Your task to perform on an android device: turn off smart reply in the gmail app Image 0: 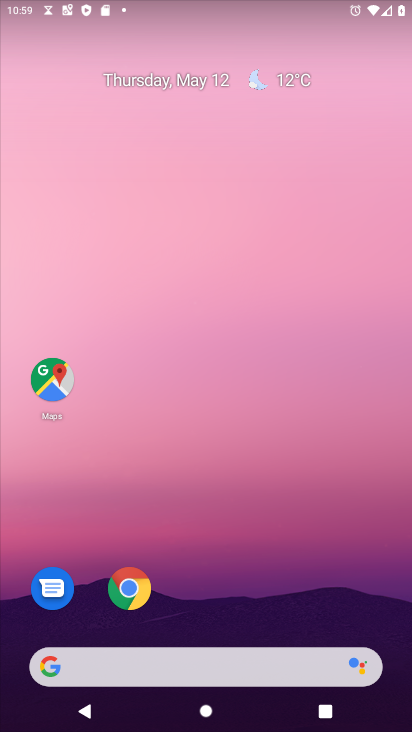
Step 0: drag from (241, 585) to (232, 117)
Your task to perform on an android device: turn off smart reply in the gmail app Image 1: 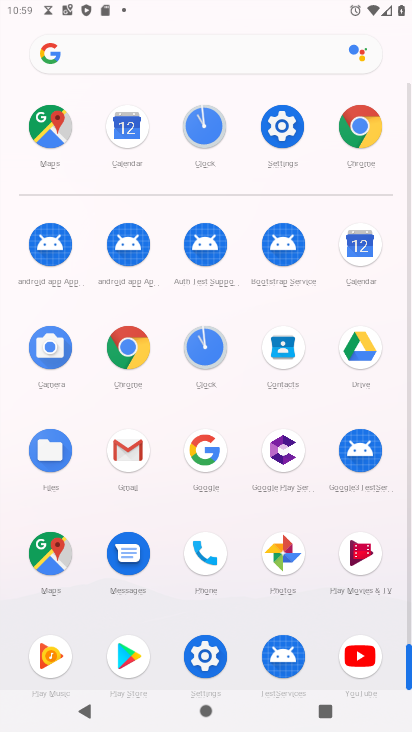
Step 1: click (126, 451)
Your task to perform on an android device: turn off smart reply in the gmail app Image 2: 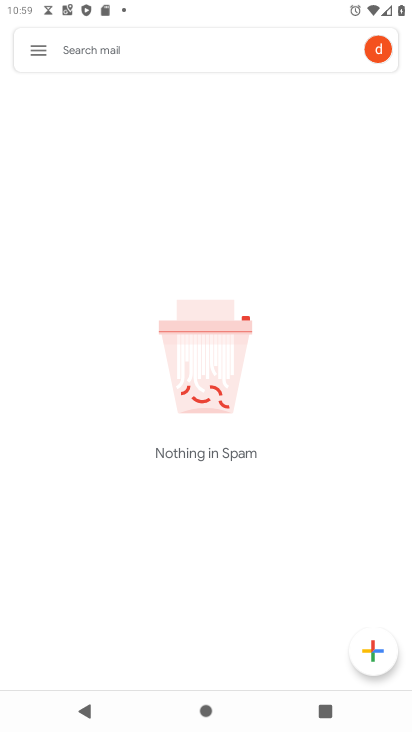
Step 2: click (37, 52)
Your task to perform on an android device: turn off smart reply in the gmail app Image 3: 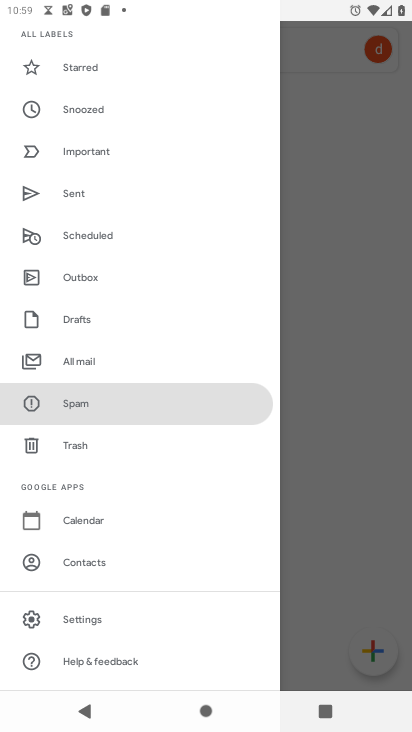
Step 3: drag from (108, 490) to (150, 405)
Your task to perform on an android device: turn off smart reply in the gmail app Image 4: 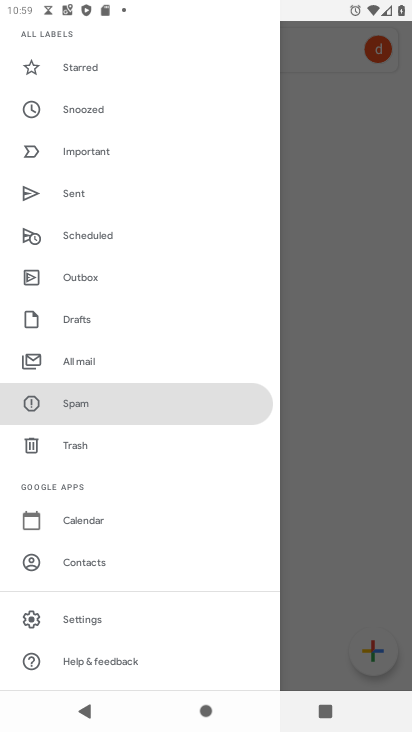
Step 4: click (87, 615)
Your task to perform on an android device: turn off smart reply in the gmail app Image 5: 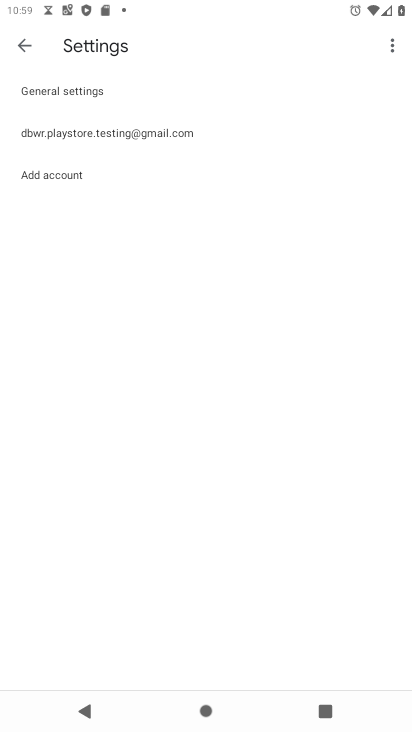
Step 5: click (81, 139)
Your task to perform on an android device: turn off smart reply in the gmail app Image 6: 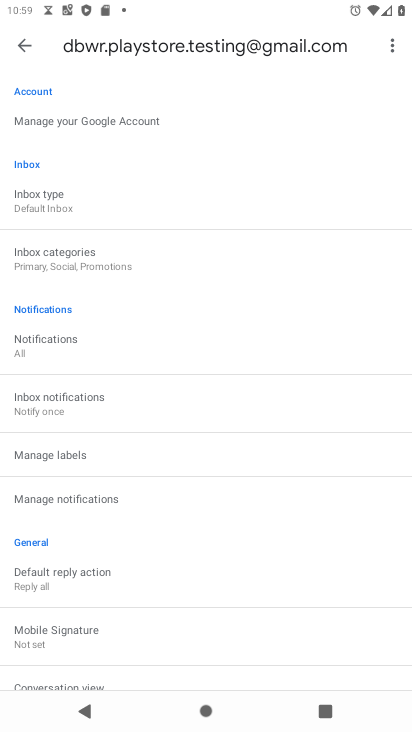
Step 6: drag from (123, 512) to (160, 397)
Your task to perform on an android device: turn off smart reply in the gmail app Image 7: 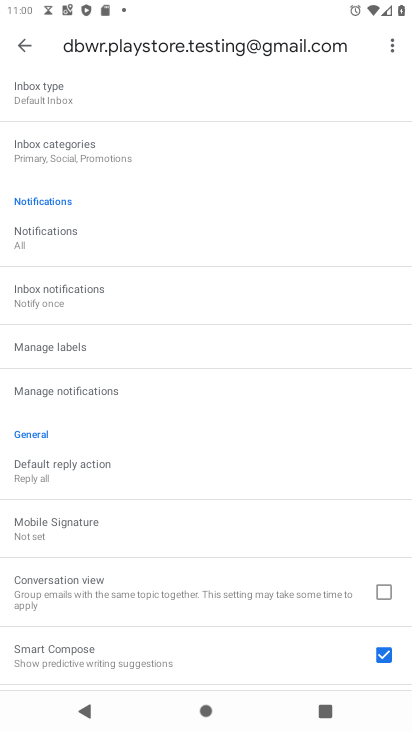
Step 7: drag from (92, 629) to (149, 463)
Your task to perform on an android device: turn off smart reply in the gmail app Image 8: 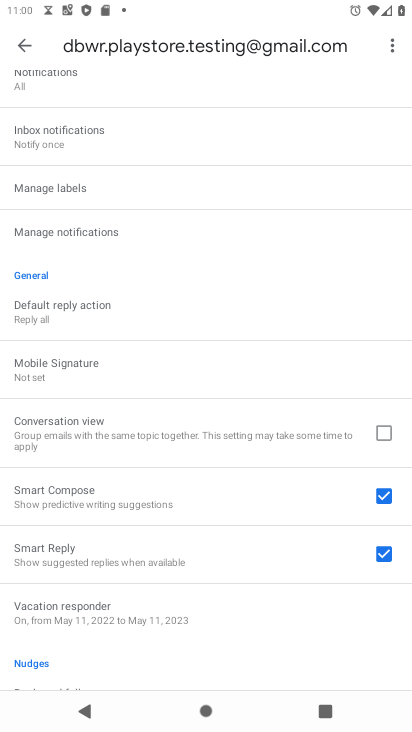
Step 8: click (388, 553)
Your task to perform on an android device: turn off smart reply in the gmail app Image 9: 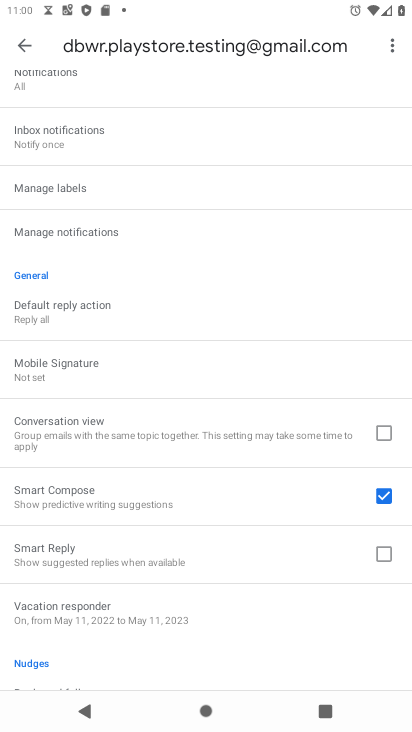
Step 9: task complete